Your task to perform on an android device: What's the weather? Image 0: 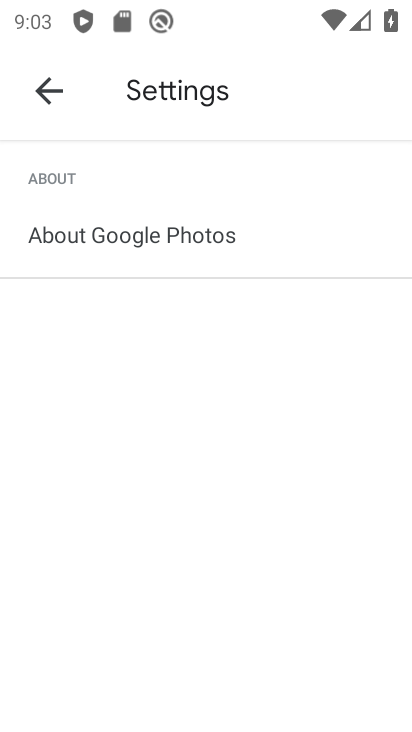
Step 0: press home button
Your task to perform on an android device: What's the weather? Image 1: 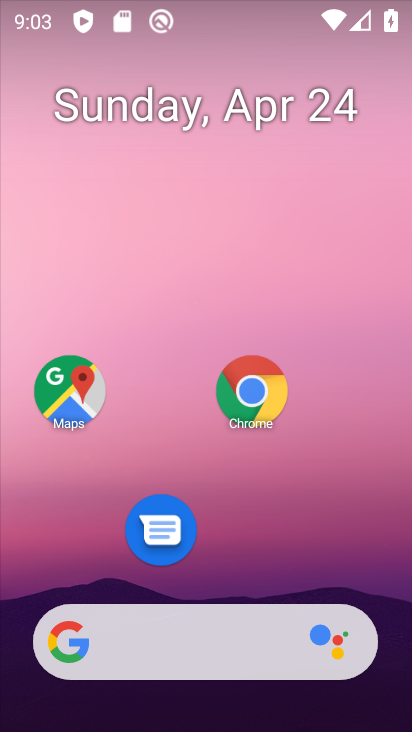
Step 1: click (209, 629)
Your task to perform on an android device: What's the weather? Image 2: 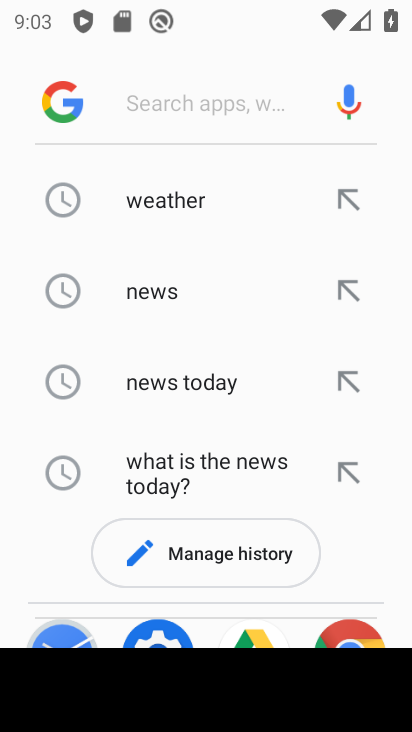
Step 2: click (130, 212)
Your task to perform on an android device: What's the weather? Image 3: 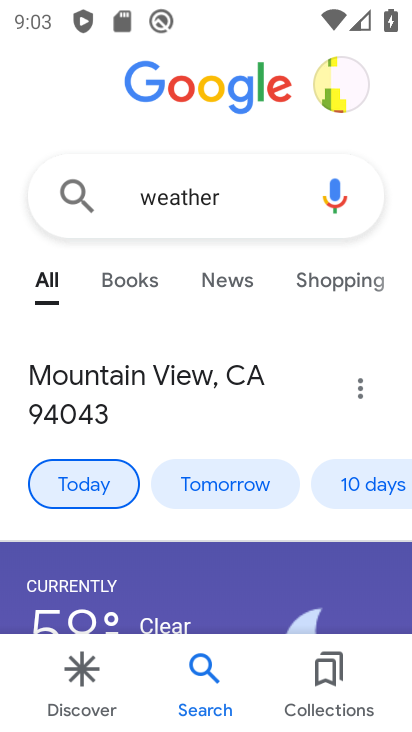
Step 3: task complete